Your task to perform on an android device: choose inbox layout in the gmail app Image 0: 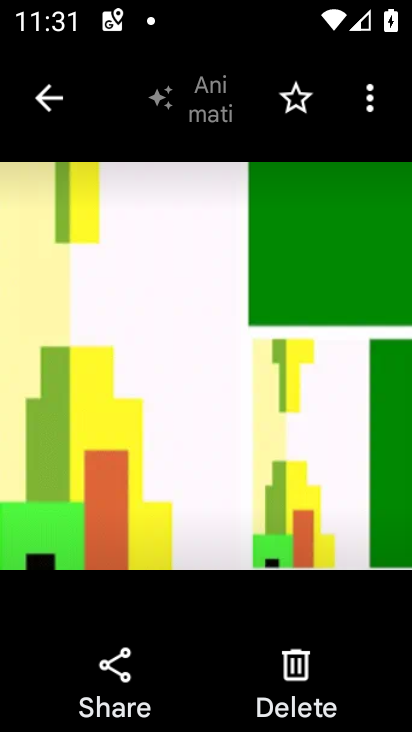
Step 0: press home button
Your task to perform on an android device: choose inbox layout in the gmail app Image 1: 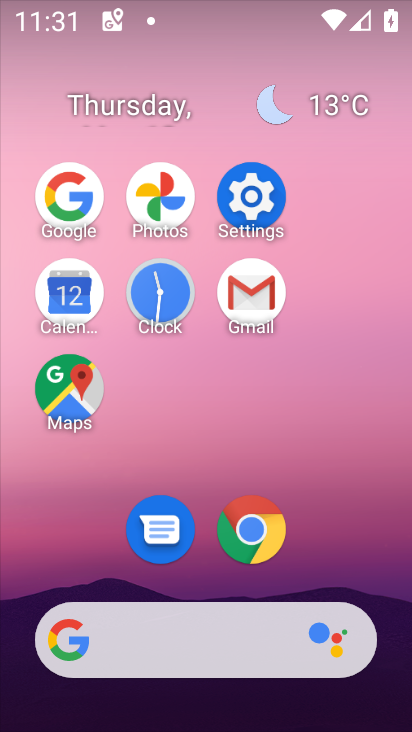
Step 1: click (236, 290)
Your task to perform on an android device: choose inbox layout in the gmail app Image 2: 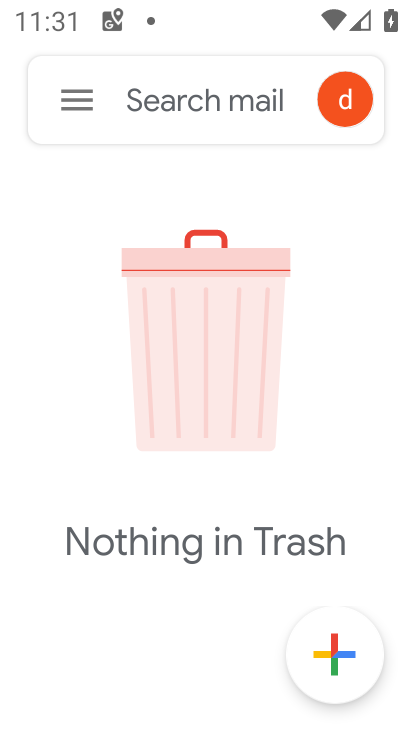
Step 2: click (95, 125)
Your task to perform on an android device: choose inbox layout in the gmail app Image 3: 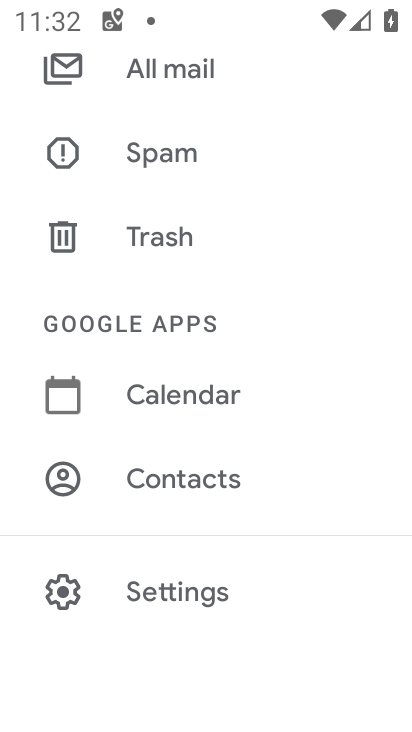
Step 3: click (226, 585)
Your task to perform on an android device: choose inbox layout in the gmail app Image 4: 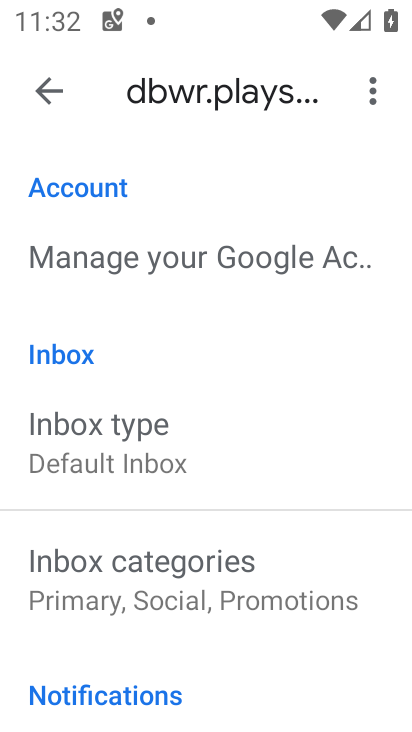
Step 4: click (213, 466)
Your task to perform on an android device: choose inbox layout in the gmail app Image 5: 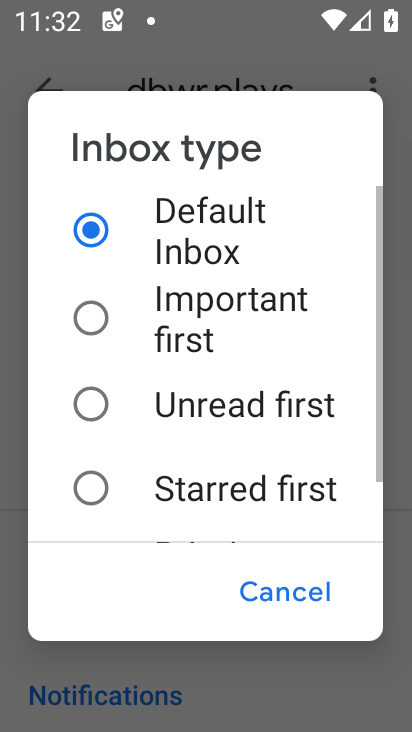
Step 5: task complete